Your task to perform on an android device: stop showing notifications on the lock screen Image 0: 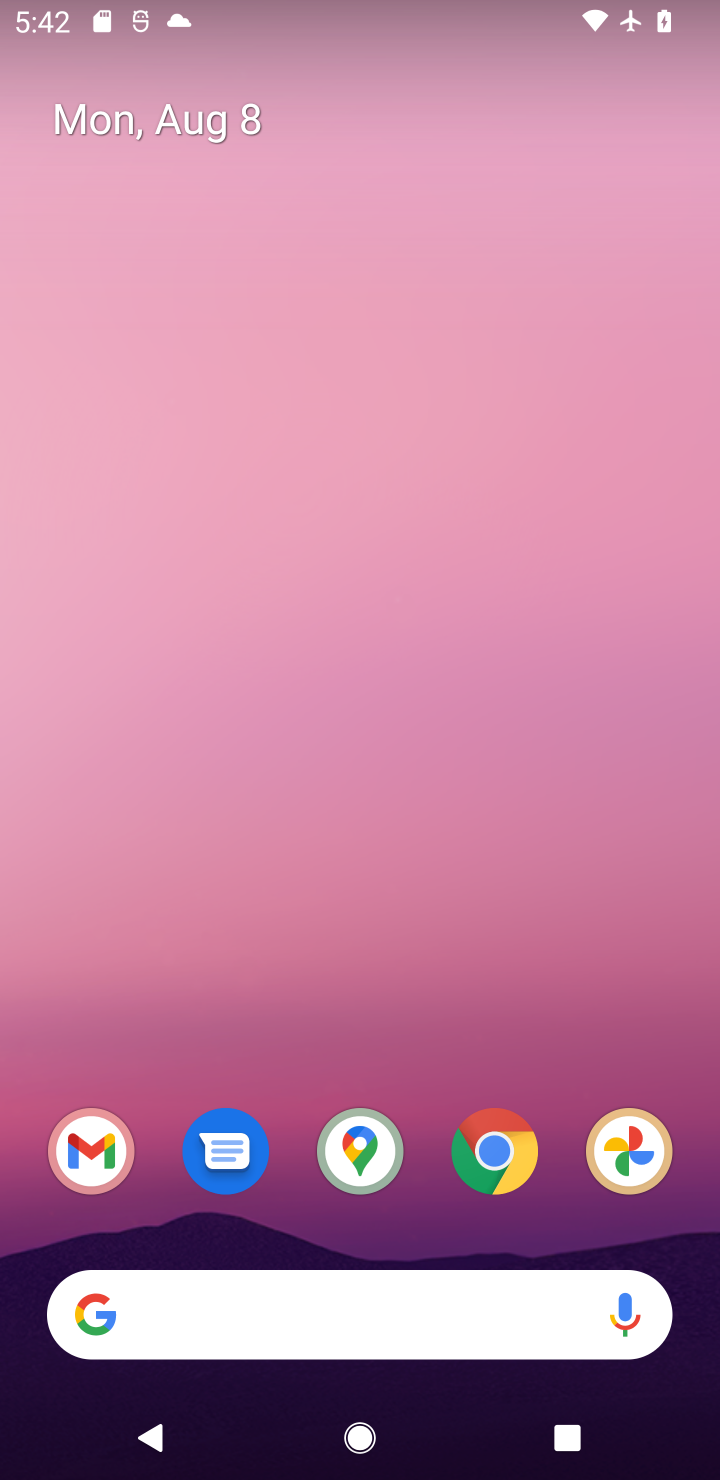
Step 0: drag from (340, 1035) to (340, 197)
Your task to perform on an android device: stop showing notifications on the lock screen Image 1: 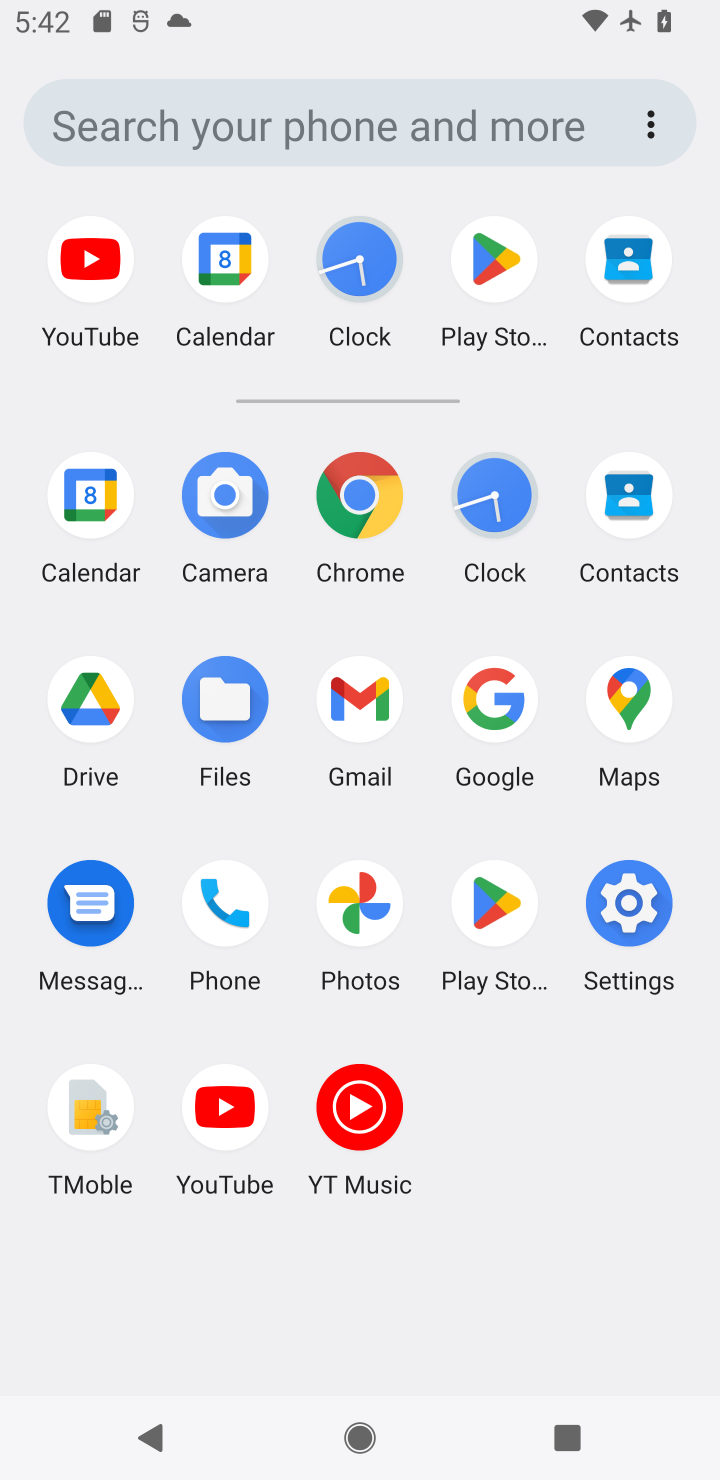
Step 1: click (646, 885)
Your task to perform on an android device: stop showing notifications on the lock screen Image 2: 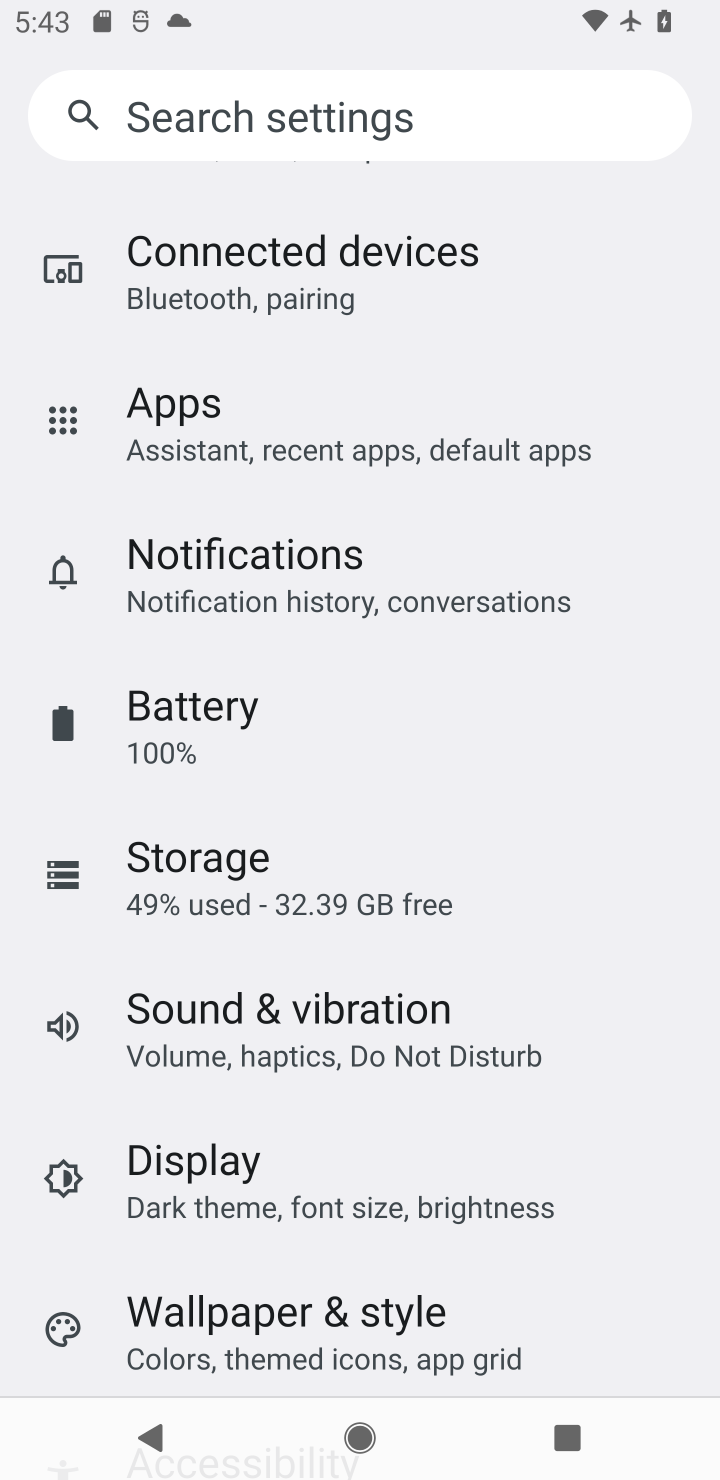
Step 2: click (474, 587)
Your task to perform on an android device: stop showing notifications on the lock screen Image 3: 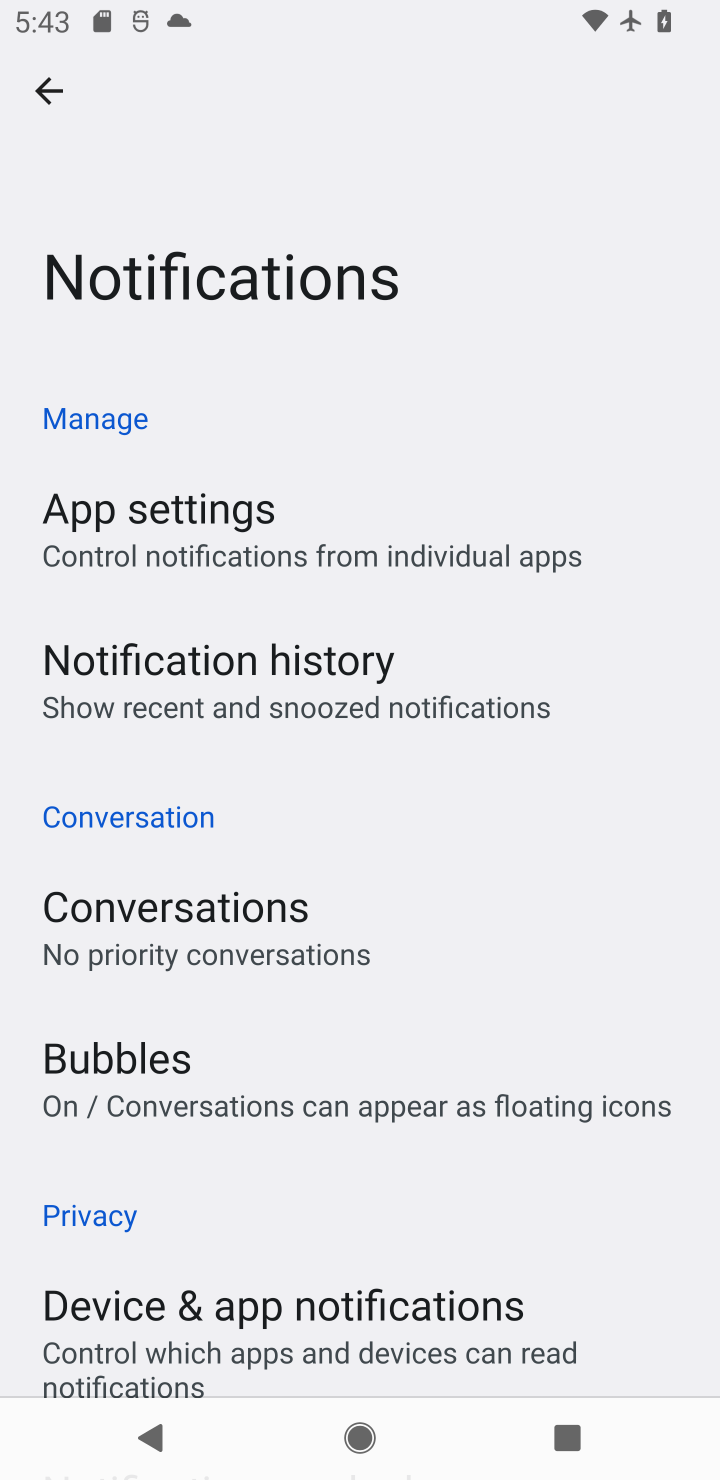
Step 3: drag from (408, 1123) to (407, 477)
Your task to perform on an android device: stop showing notifications on the lock screen Image 4: 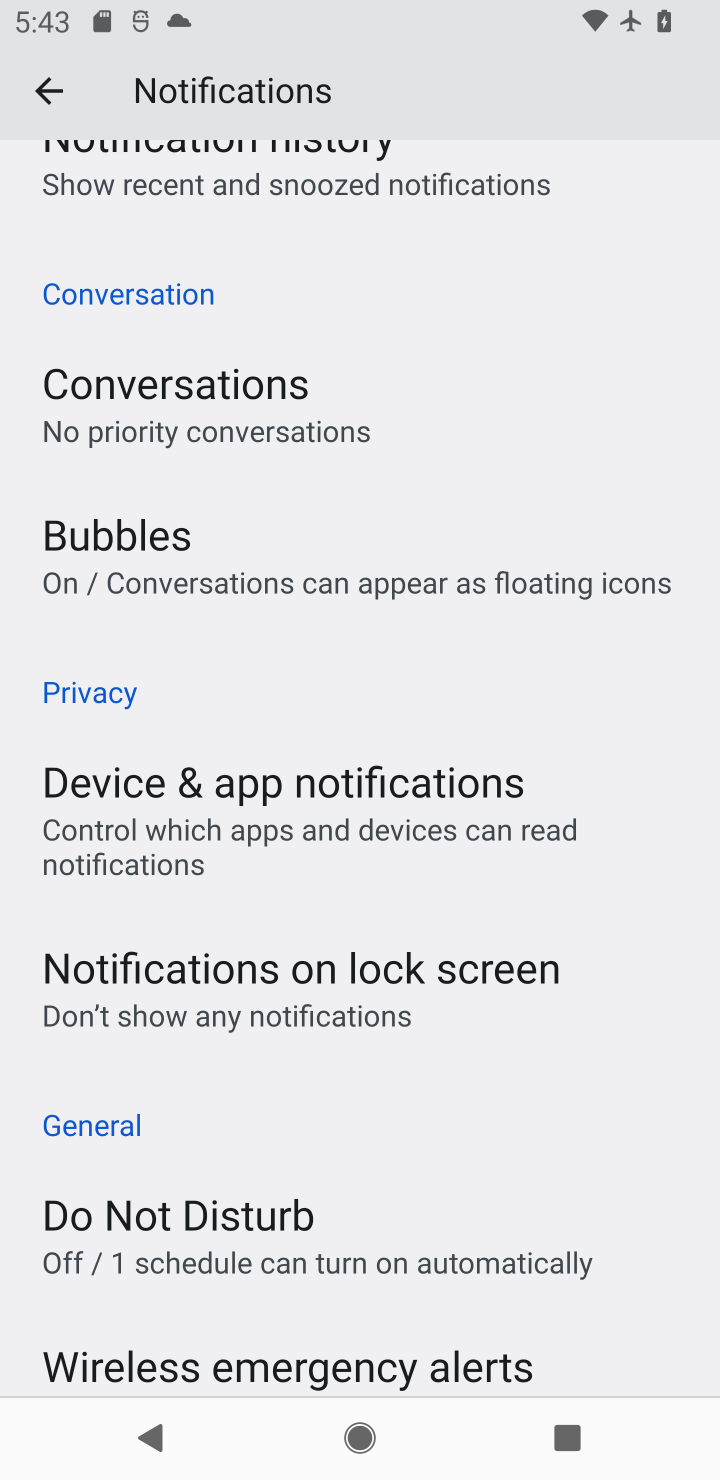
Step 4: click (328, 1018)
Your task to perform on an android device: stop showing notifications on the lock screen Image 5: 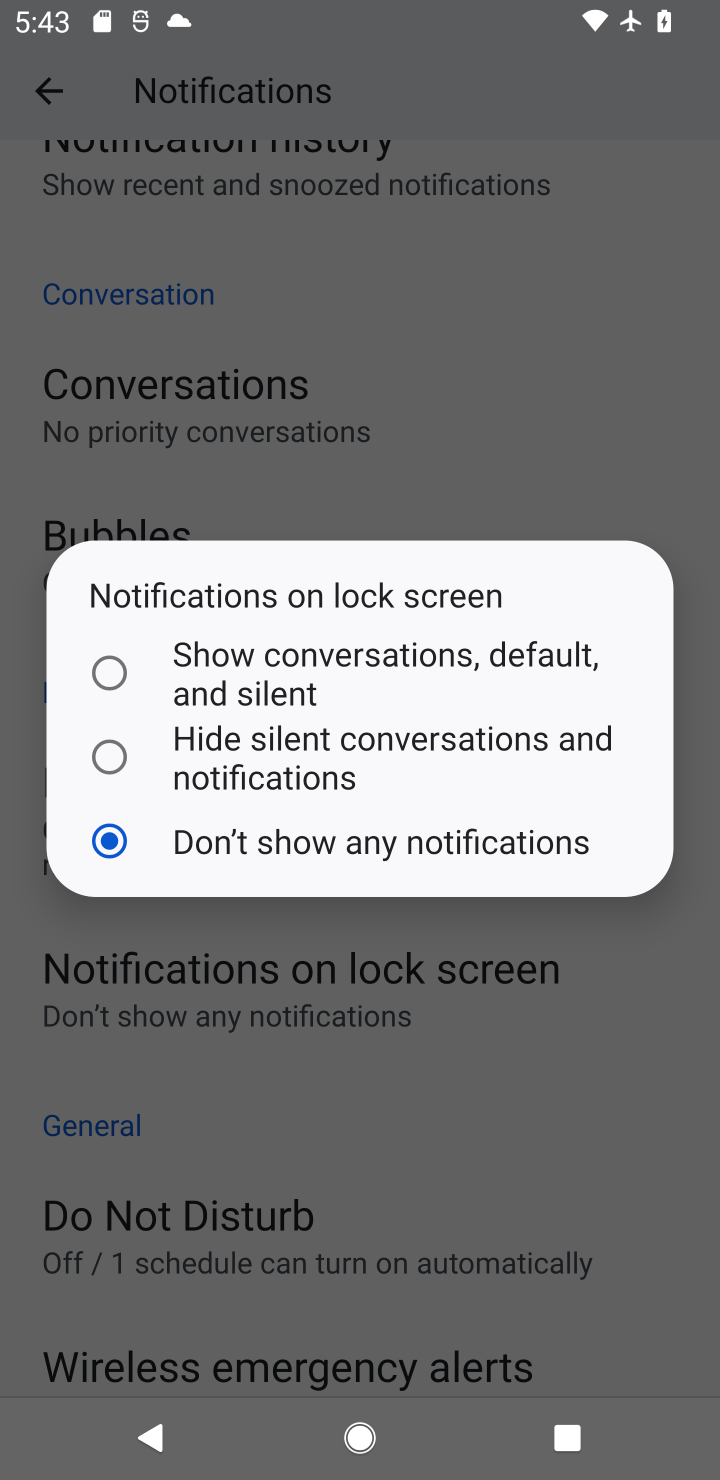
Step 5: task complete